Your task to perform on an android device: uninstall "Instagram" Image 0: 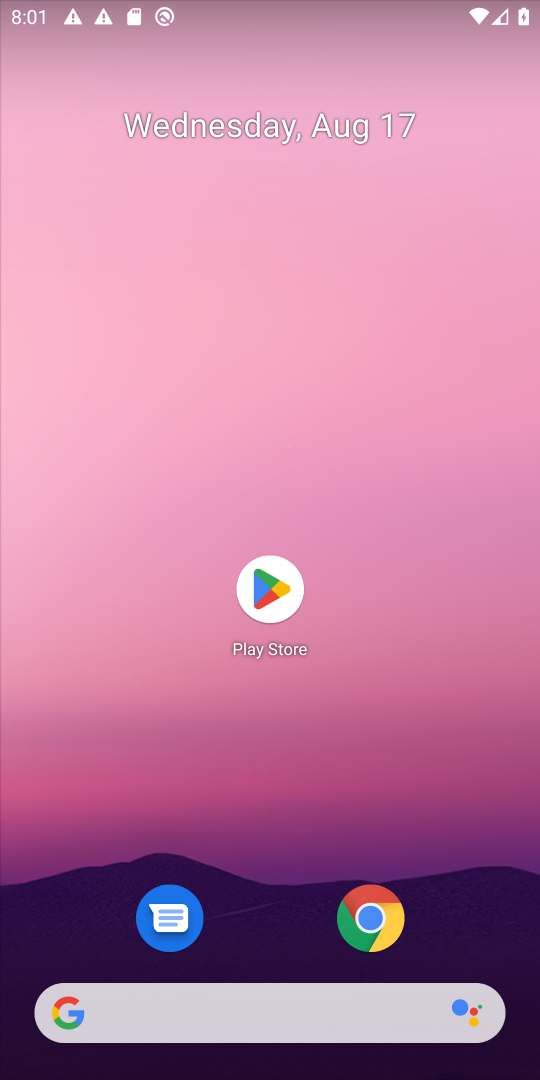
Step 0: click (271, 589)
Your task to perform on an android device: uninstall "Instagram" Image 1: 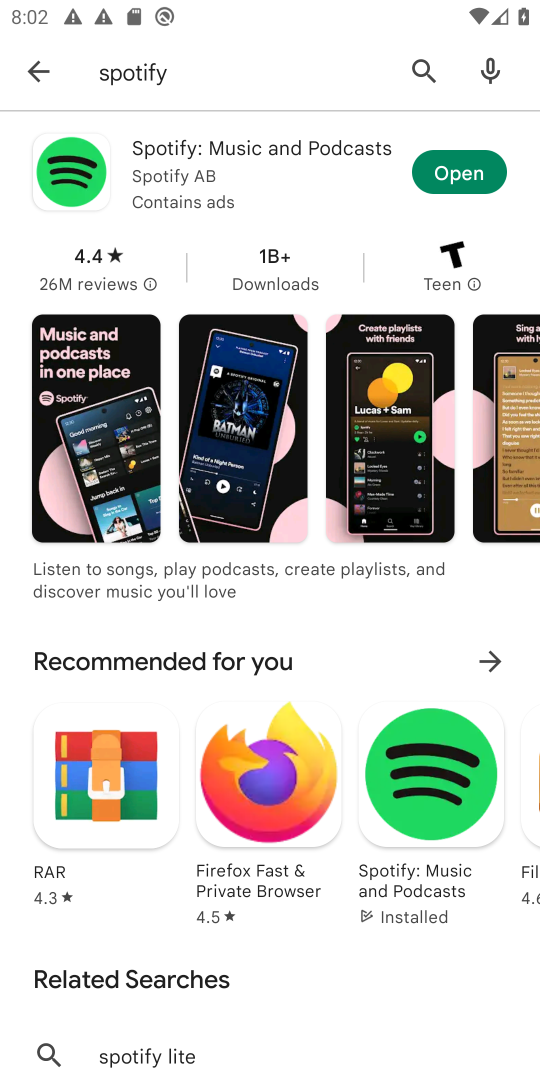
Step 1: click (420, 64)
Your task to perform on an android device: uninstall "Instagram" Image 2: 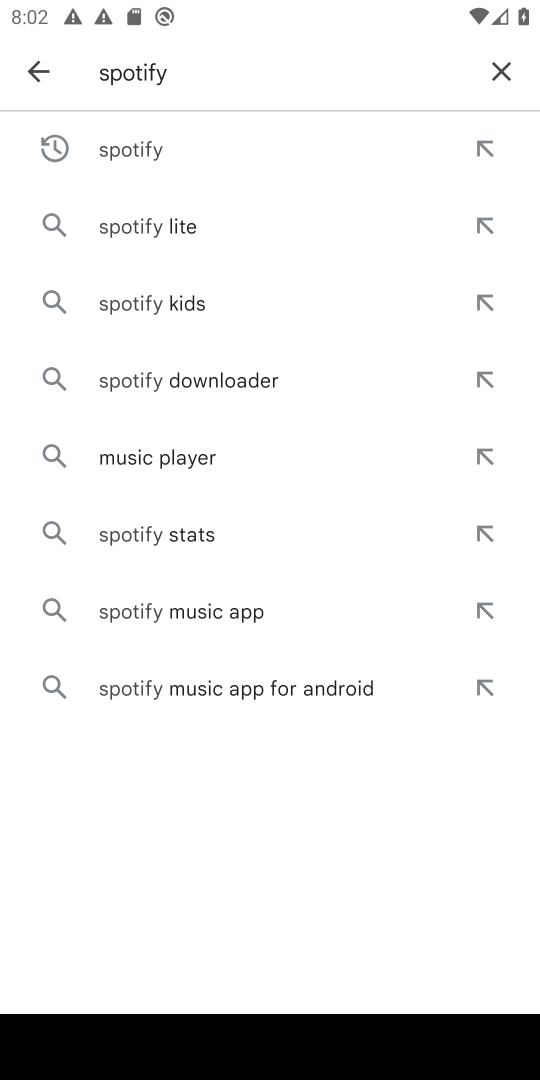
Step 2: click (500, 68)
Your task to perform on an android device: uninstall "Instagram" Image 3: 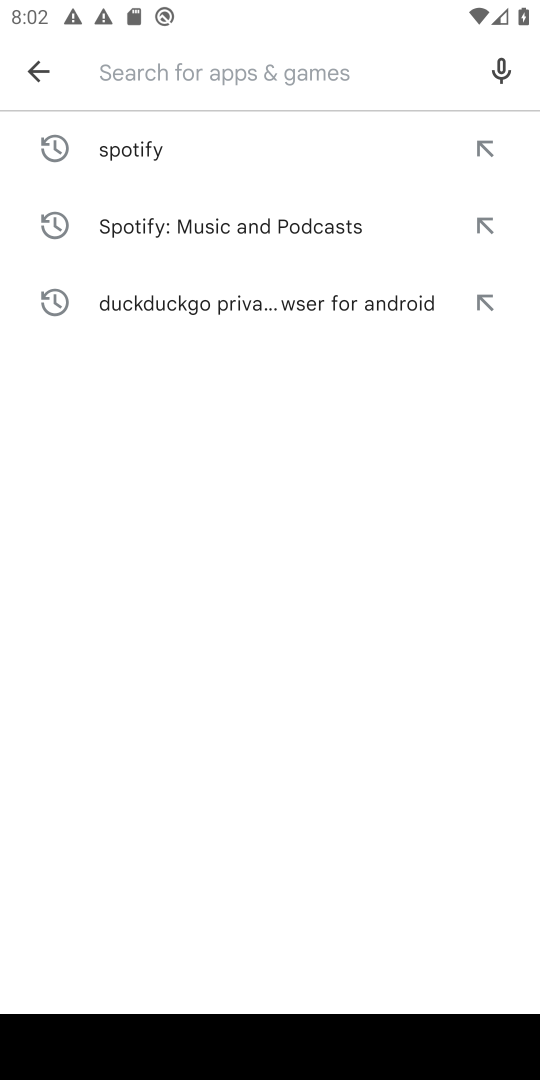
Step 3: type "Instagram"
Your task to perform on an android device: uninstall "Instagram" Image 4: 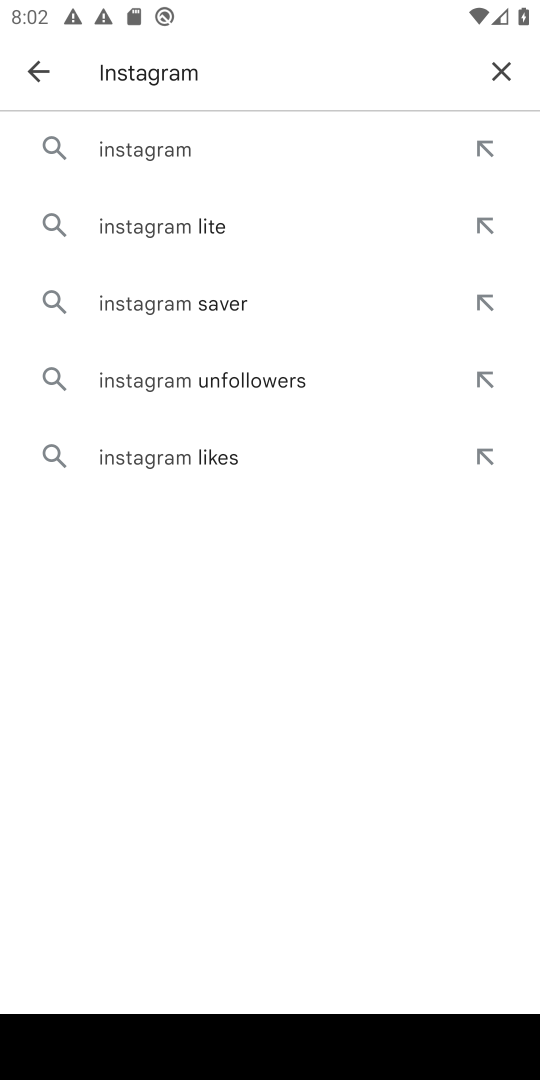
Step 4: click (156, 152)
Your task to perform on an android device: uninstall "Instagram" Image 5: 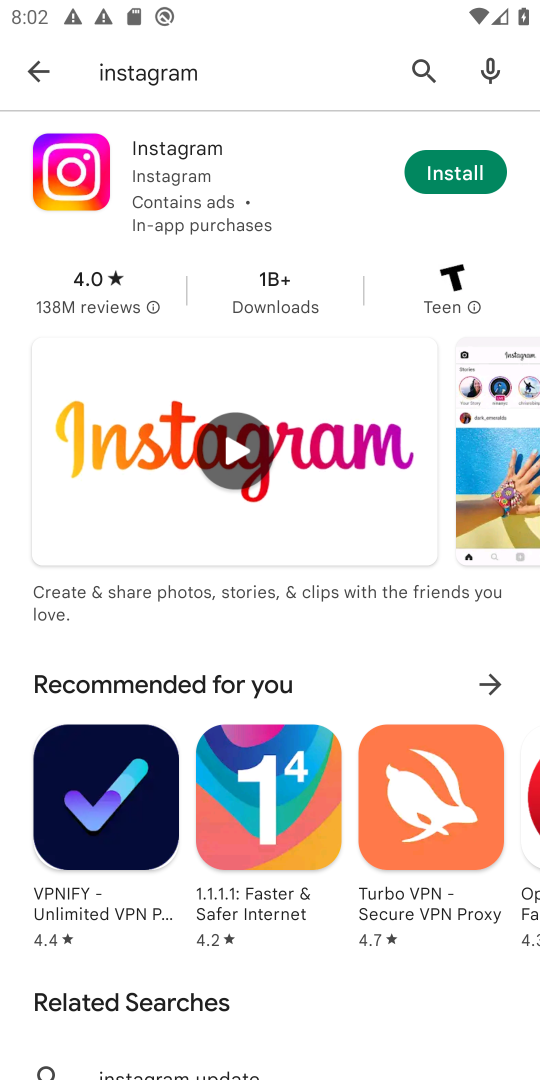
Step 5: task complete